Your task to perform on an android device: toggle notifications settings in the gmail app Image 0: 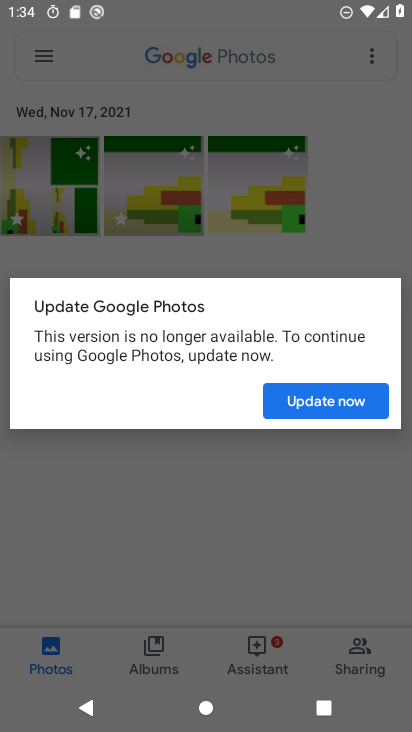
Step 0: press home button
Your task to perform on an android device: toggle notifications settings in the gmail app Image 1: 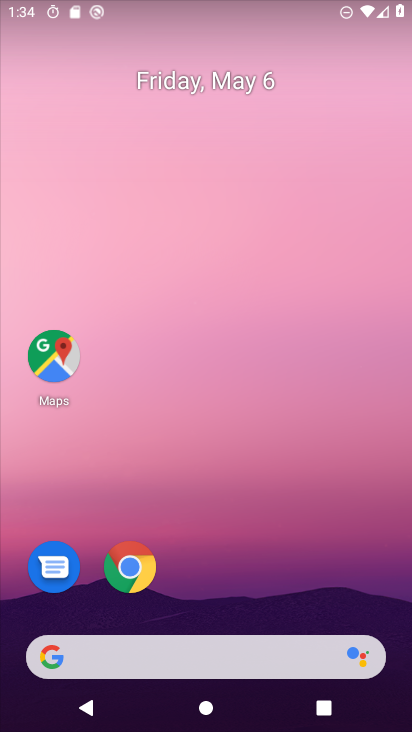
Step 1: drag from (354, 608) to (322, 75)
Your task to perform on an android device: toggle notifications settings in the gmail app Image 2: 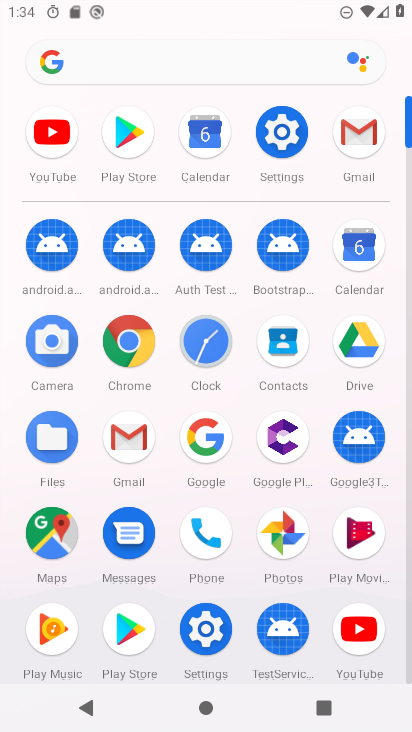
Step 2: click (352, 140)
Your task to perform on an android device: toggle notifications settings in the gmail app Image 3: 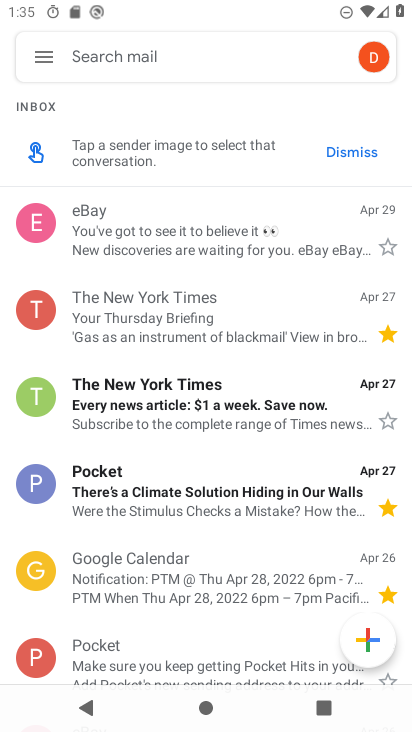
Step 3: click (43, 57)
Your task to perform on an android device: toggle notifications settings in the gmail app Image 4: 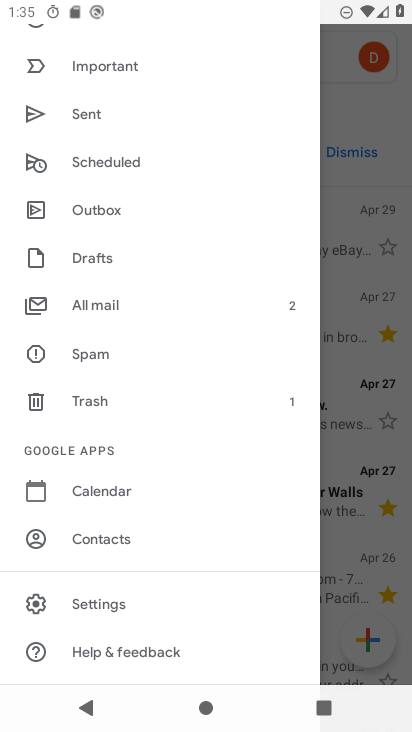
Step 4: click (110, 605)
Your task to perform on an android device: toggle notifications settings in the gmail app Image 5: 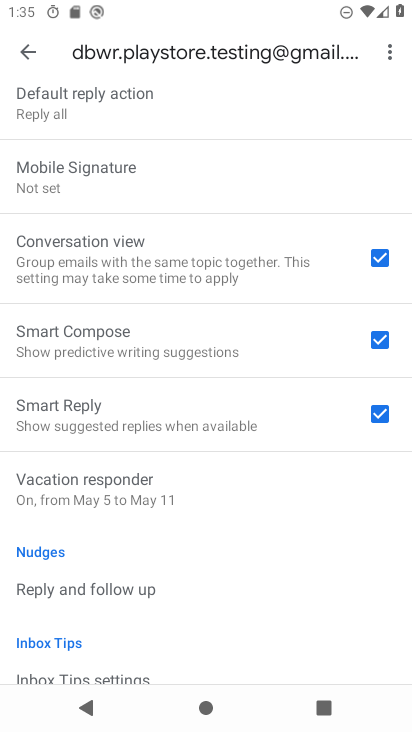
Step 5: click (24, 50)
Your task to perform on an android device: toggle notifications settings in the gmail app Image 6: 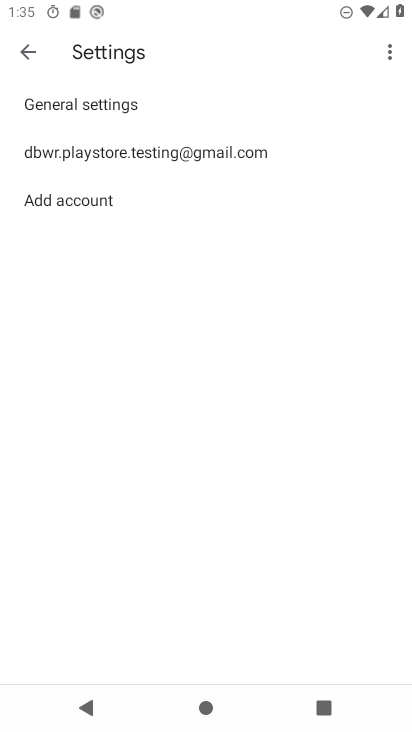
Step 6: click (69, 107)
Your task to perform on an android device: toggle notifications settings in the gmail app Image 7: 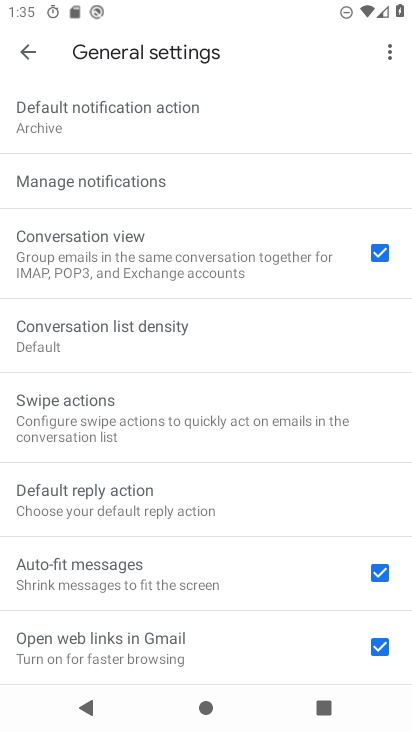
Step 7: click (100, 186)
Your task to perform on an android device: toggle notifications settings in the gmail app Image 8: 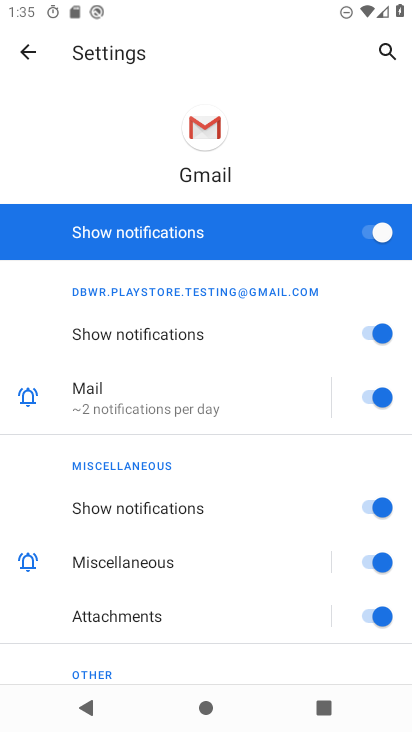
Step 8: click (372, 234)
Your task to perform on an android device: toggle notifications settings in the gmail app Image 9: 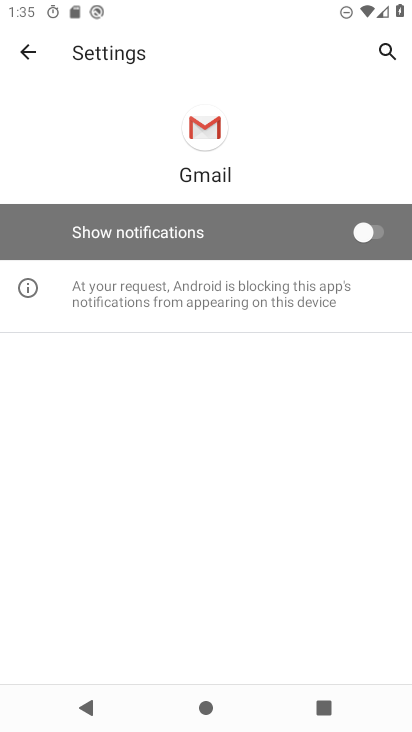
Step 9: task complete